Your task to perform on an android device: install app "HBO Max: Stream TV & Movies" Image 0: 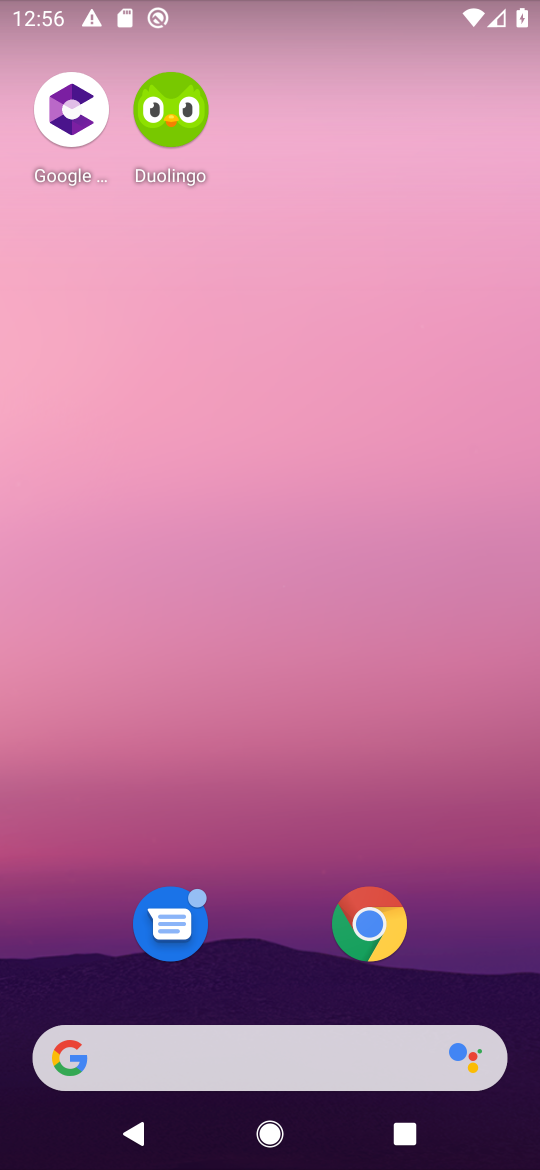
Step 0: drag from (245, 1039) to (1, 297)
Your task to perform on an android device: install app "HBO Max: Stream TV & Movies" Image 1: 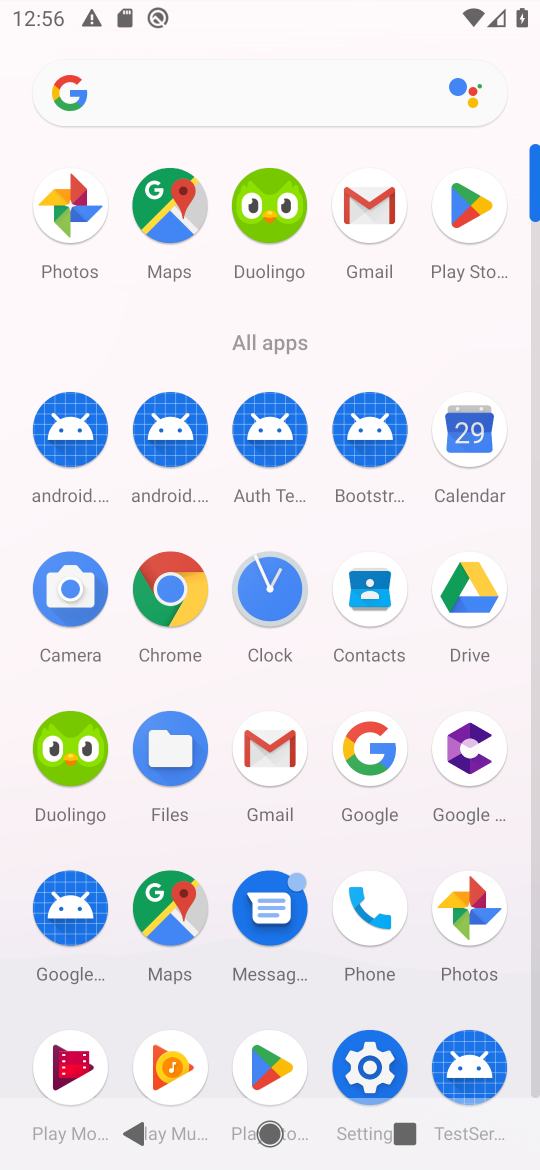
Step 1: click (456, 248)
Your task to perform on an android device: install app "HBO Max: Stream TV & Movies" Image 2: 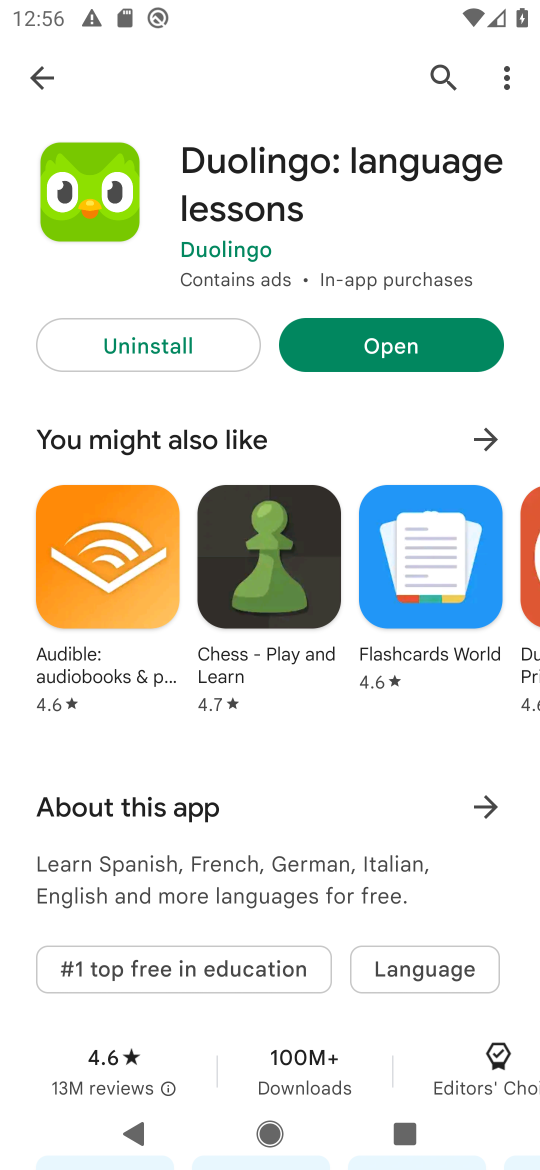
Step 2: click (425, 74)
Your task to perform on an android device: install app "HBO Max: Stream TV & Movies" Image 3: 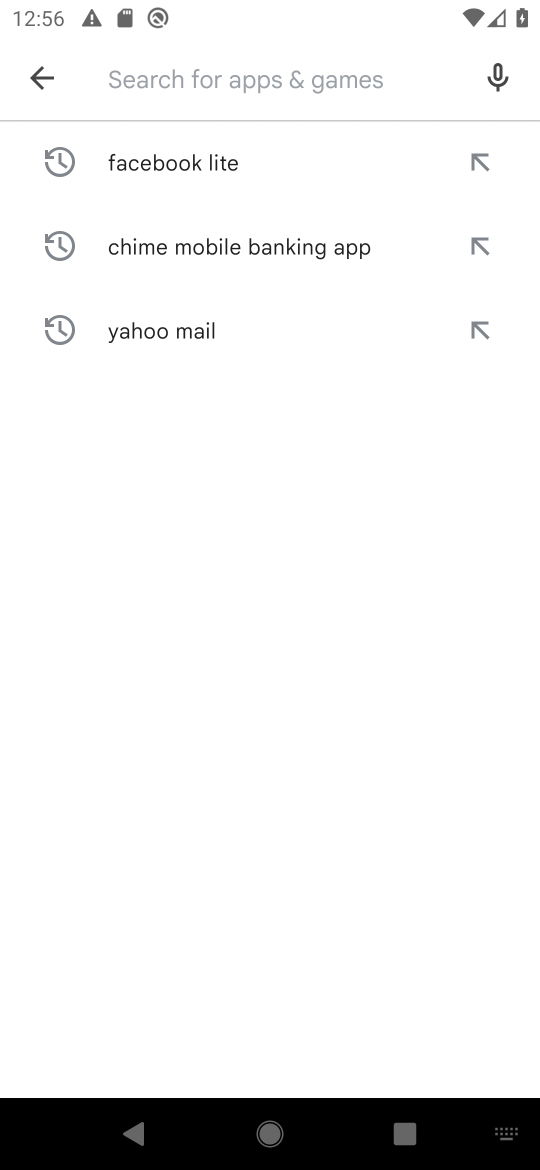
Step 3: type "HBO Max: Stream TV & Movies"
Your task to perform on an android device: install app "HBO Max: Stream TV & Movies" Image 4: 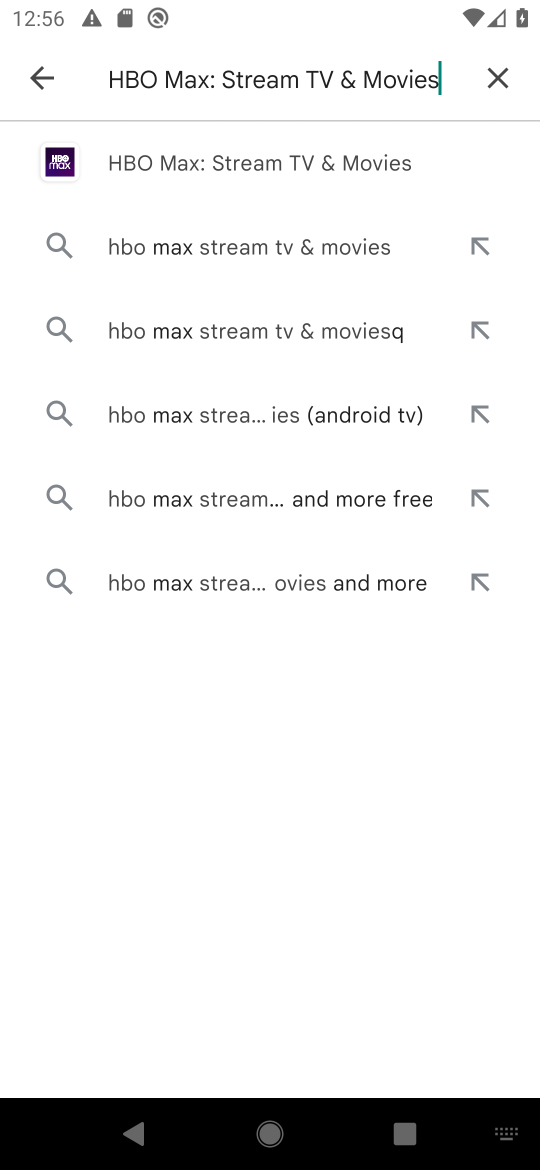
Step 4: click (148, 147)
Your task to perform on an android device: install app "HBO Max: Stream TV & Movies" Image 5: 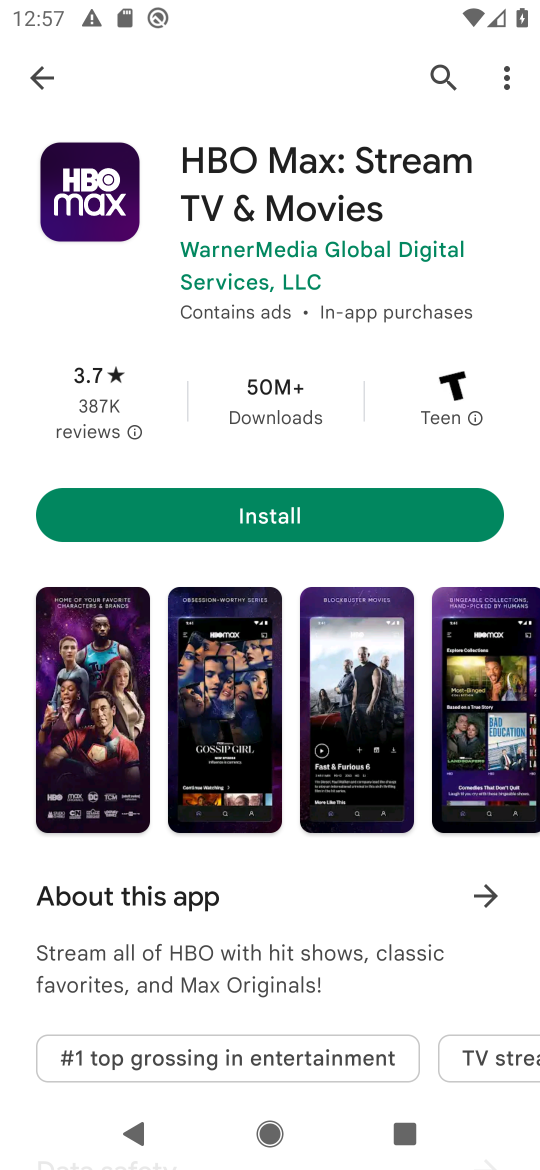
Step 5: click (209, 524)
Your task to perform on an android device: install app "HBO Max: Stream TV & Movies" Image 6: 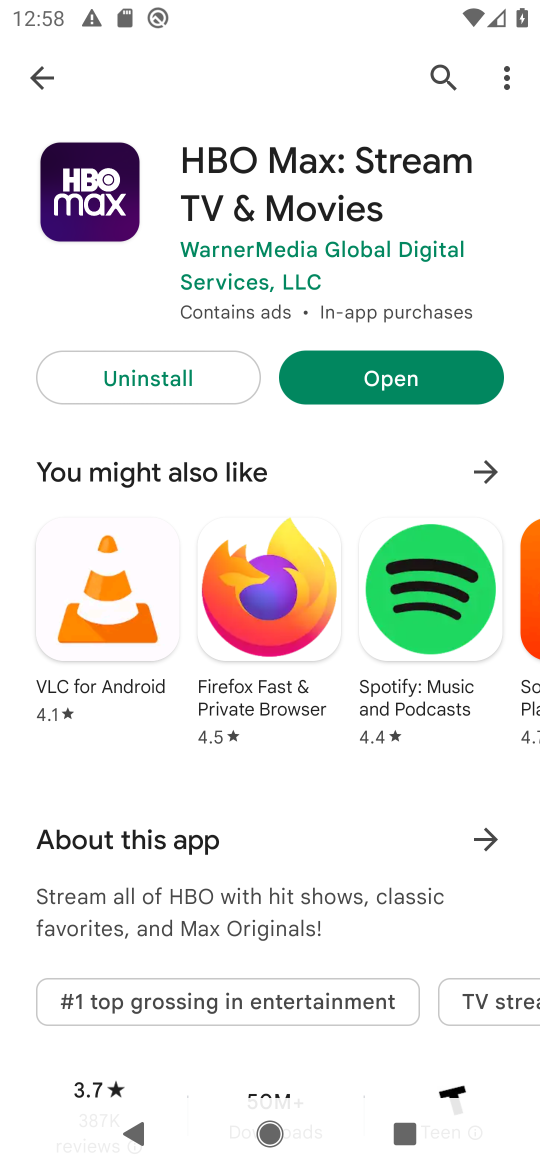
Step 6: task complete